Your task to perform on an android device: set an alarm Image 0: 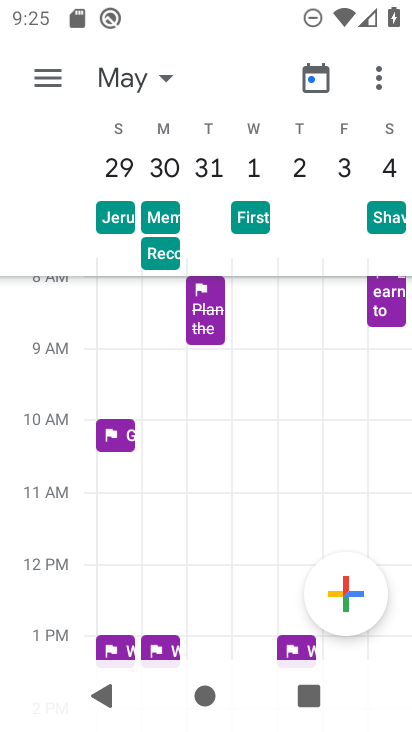
Step 0: press home button
Your task to perform on an android device: set an alarm Image 1: 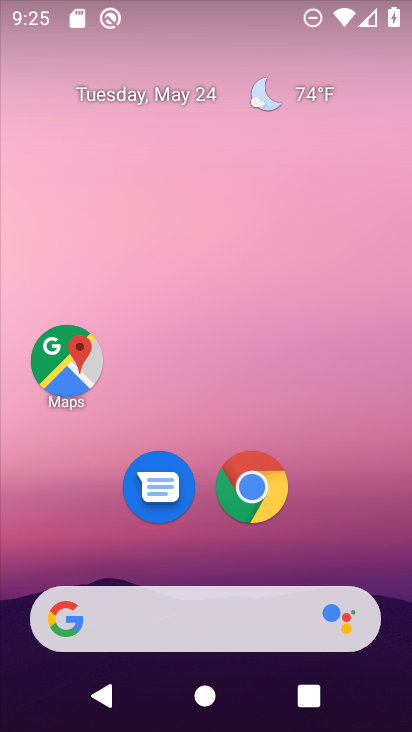
Step 1: drag from (352, 588) to (219, 28)
Your task to perform on an android device: set an alarm Image 2: 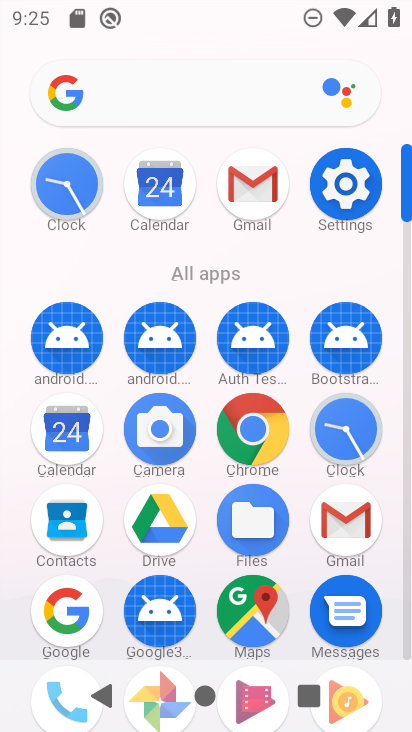
Step 2: click (58, 185)
Your task to perform on an android device: set an alarm Image 3: 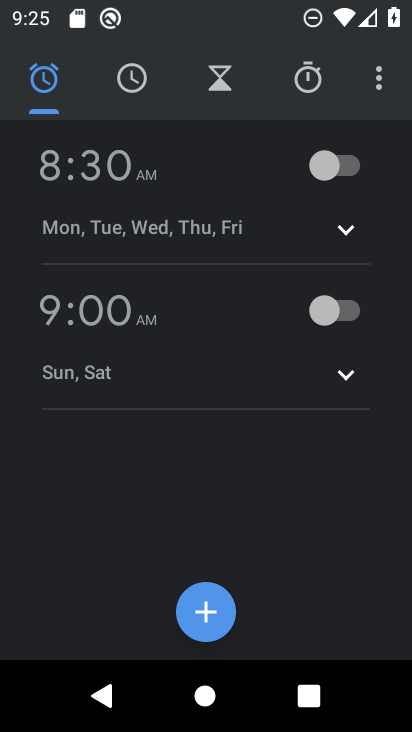
Step 3: click (210, 620)
Your task to perform on an android device: set an alarm Image 4: 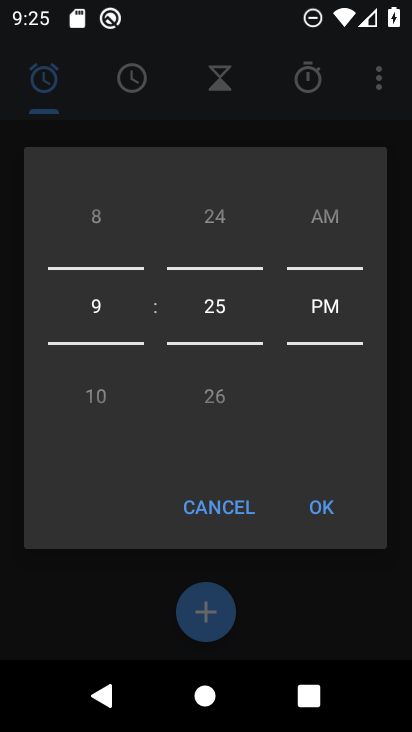
Step 4: drag from (97, 307) to (85, 539)
Your task to perform on an android device: set an alarm Image 5: 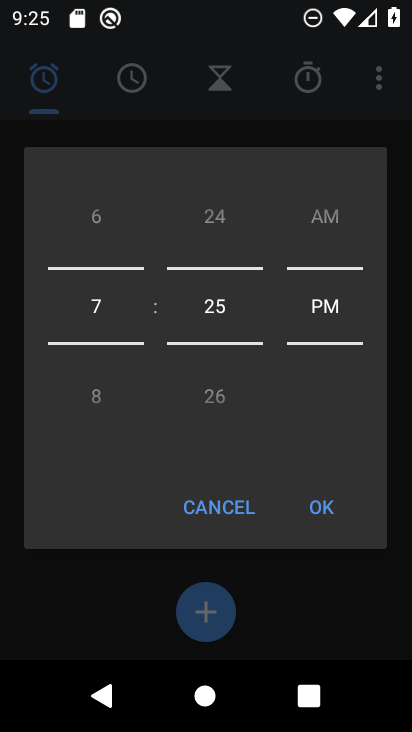
Step 5: drag from (218, 308) to (204, 174)
Your task to perform on an android device: set an alarm Image 6: 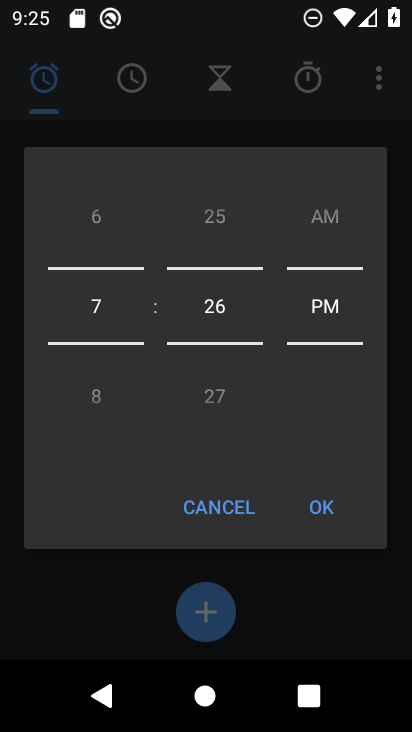
Step 6: drag from (203, 378) to (213, 95)
Your task to perform on an android device: set an alarm Image 7: 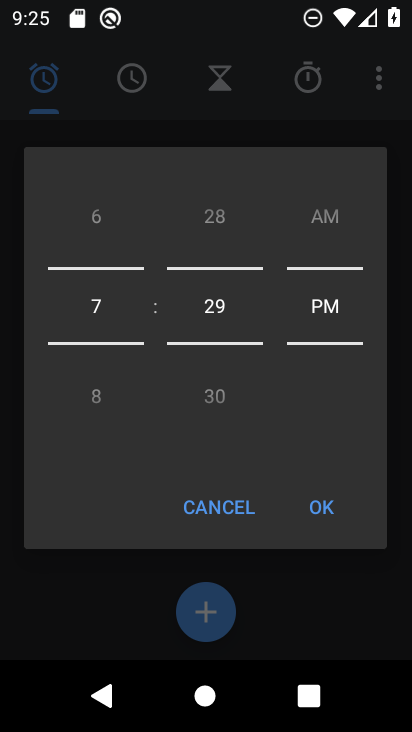
Step 7: drag from (220, 360) to (219, 245)
Your task to perform on an android device: set an alarm Image 8: 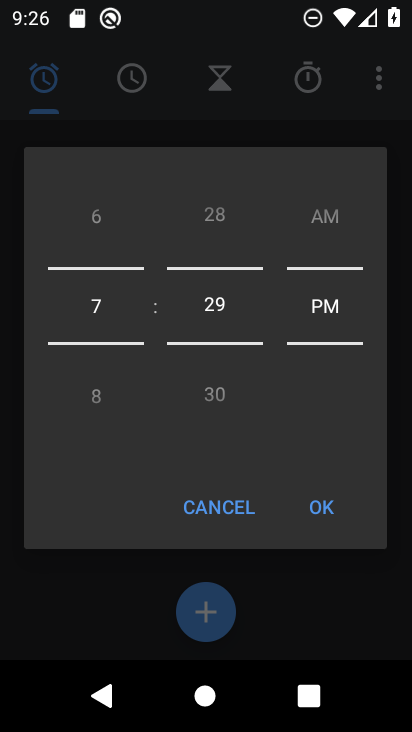
Step 8: drag from (328, 299) to (338, 404)
Your task to perform on an android device: set an alarm Image 9: 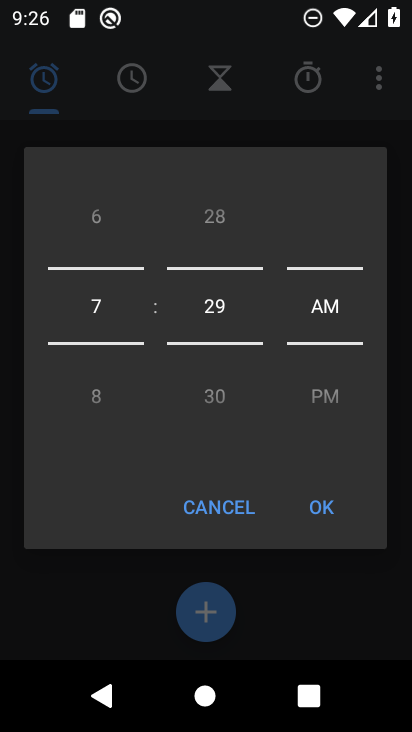
Step 9: drag from (230, 343) to (227, 187)
Your task to perform on an android device: set an alarm Image 10: 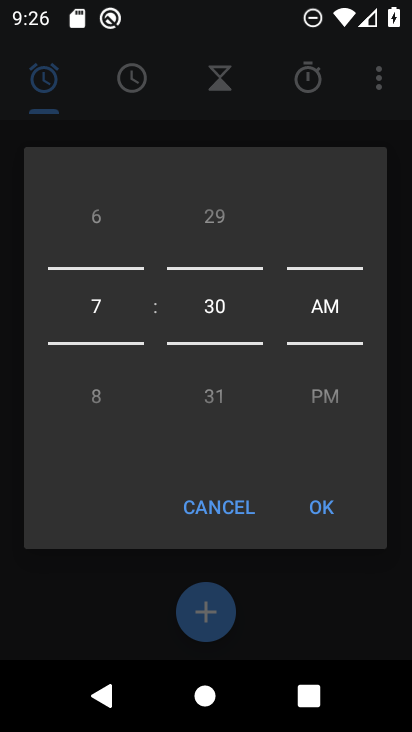
Step 10: click (307, 510)
Your task to perform on an android device: set an alarm Image 11: 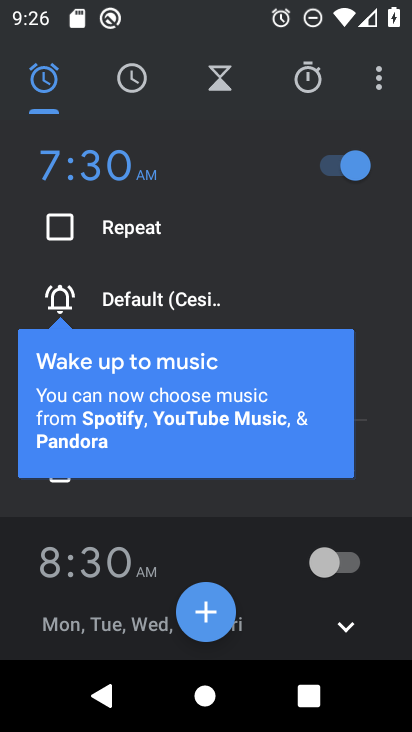
Step 11: task complete